Your task to perform on an android device: Is it going to rain this weekend? Image 0: 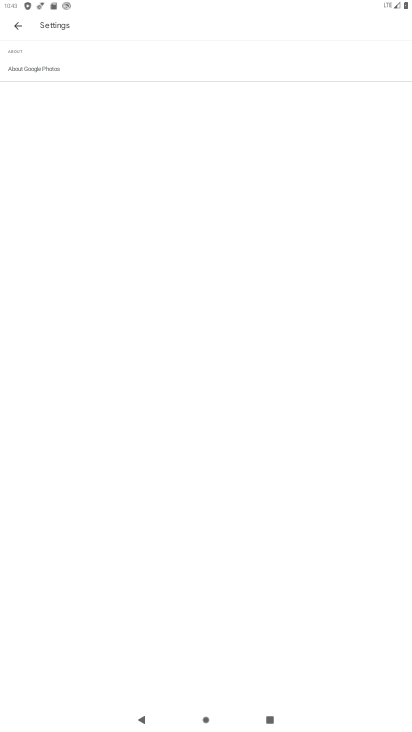
Step 0: press home button
Your task to perform on an android device: Is it going to rain this weekend? Image 1: 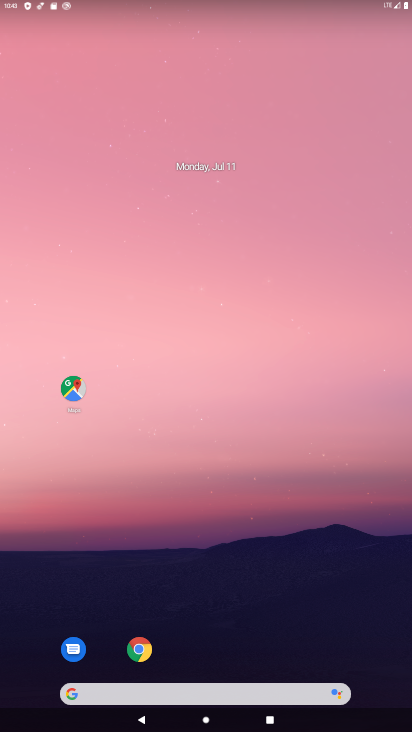
Step 1: drag from (266, 358) to (226, 82)
Your task to perform on an android device: Is it going to rain this weekend? Image 2: 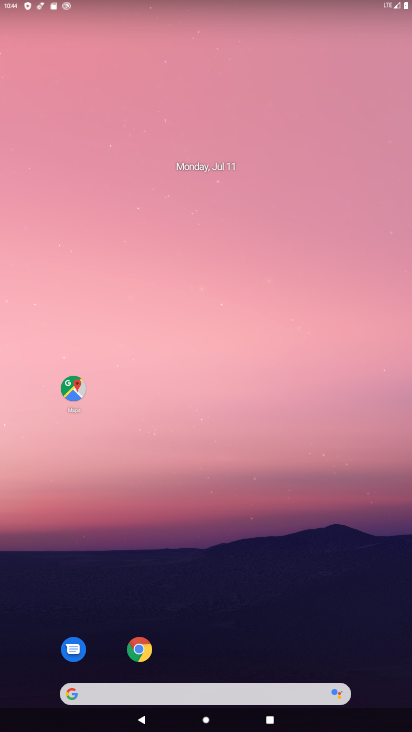
Step 2: drag from (270, 636) to (263, 48)
Your task to perform on an android device: Is it going to rain this weekend? Image 3: 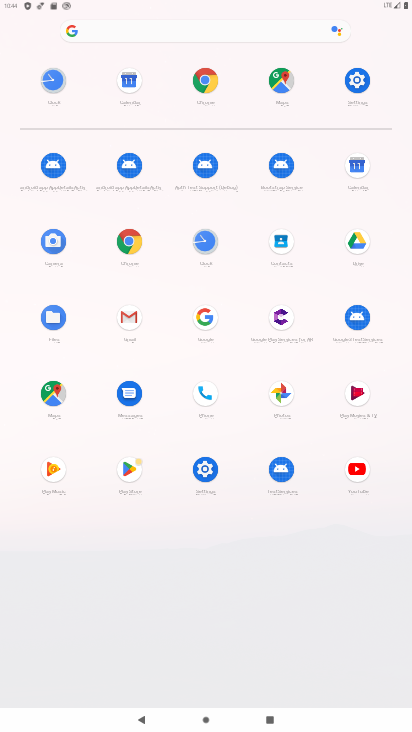
Step 3: press home button
Your task to perform on an android device: Is it going to rain this weekend? Image 4: 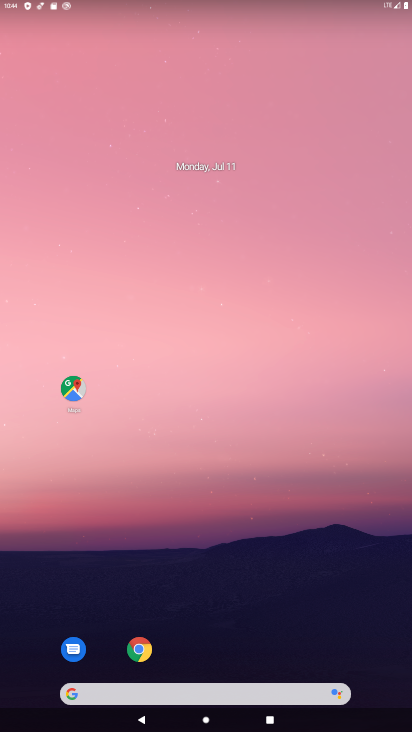
Step 4: drag from (294, 498) to (295, 38)
Your task to perform on an android device: Is it going to rain this weekend? Image 5: 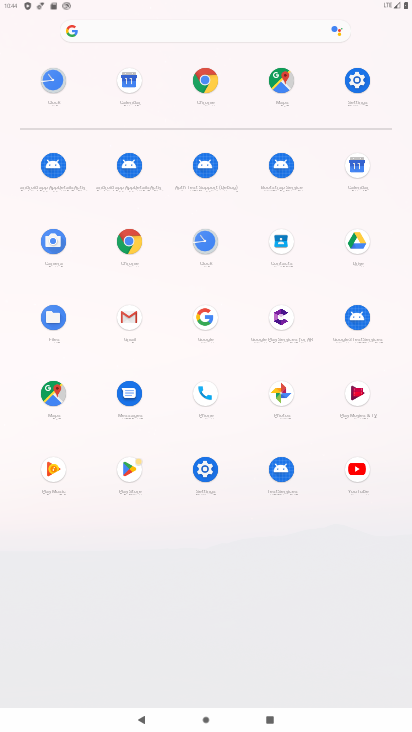
Step 5: click (131, 236)
Your task to perform on an android device: Is it going to rain this weekend? Image 6: 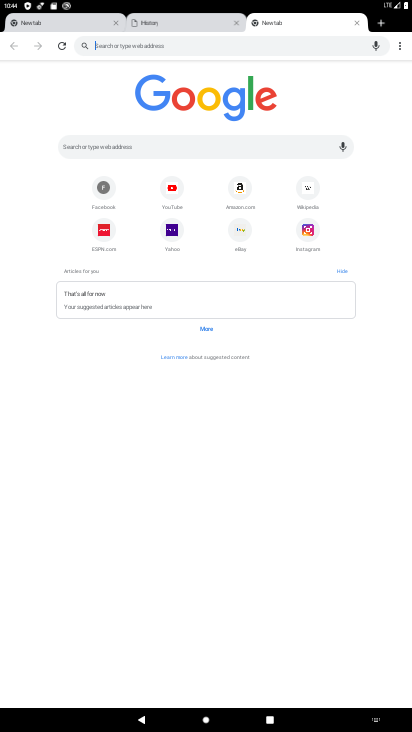
Step 6: click (164, 146)
Your task to perform on an android device: Is it going to rain this weekend? Image 7: 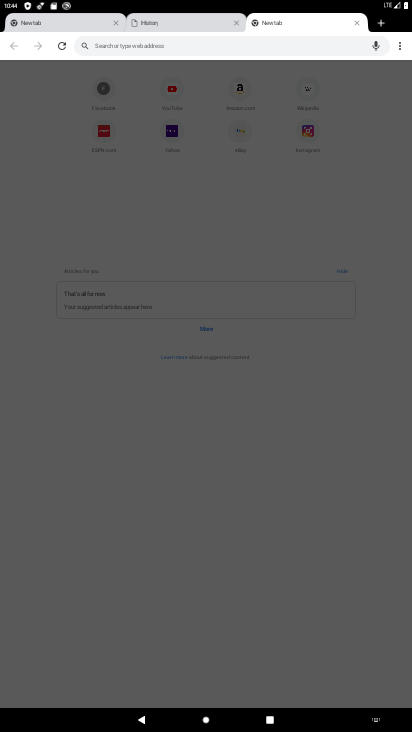
Step 7: type "weather"
Your task to perform on an android device: Is it going to rain this weekend? Image 8: 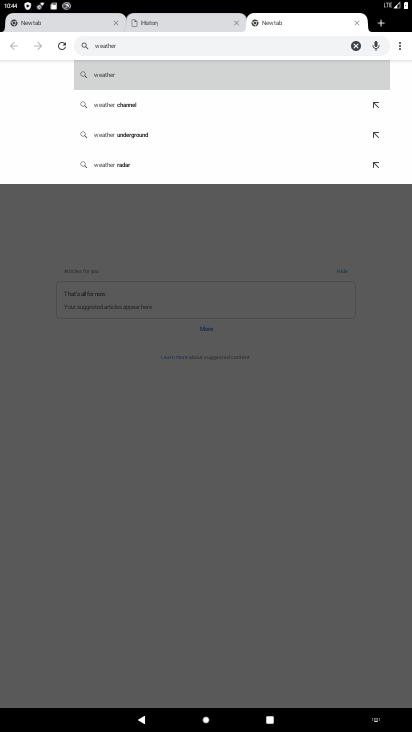
Step 8: click (109, 73)
Your task to perform on an android device: Is it going to rain this weekend? Image 9: 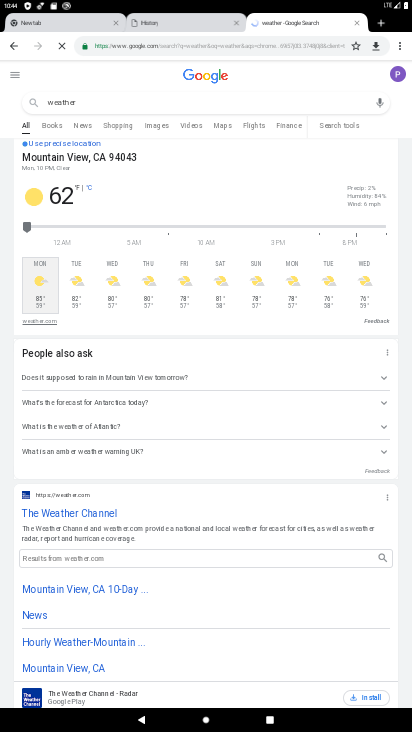
Step 9: click (221, 279)
Your task to perform on an android device: Is it going to rain this weekend? Image 10: 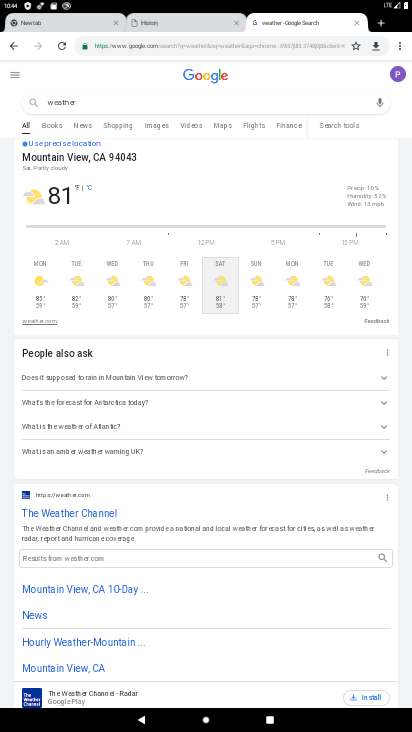
Step 10: task complete